Your task to perform on an android device: open wifi settings Image 0: 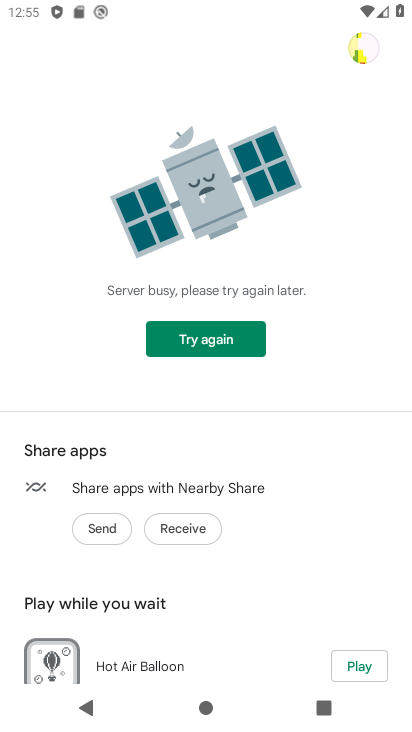
Step 0: press home button
Your task to perform on an android device: open wifi settings Image 1: 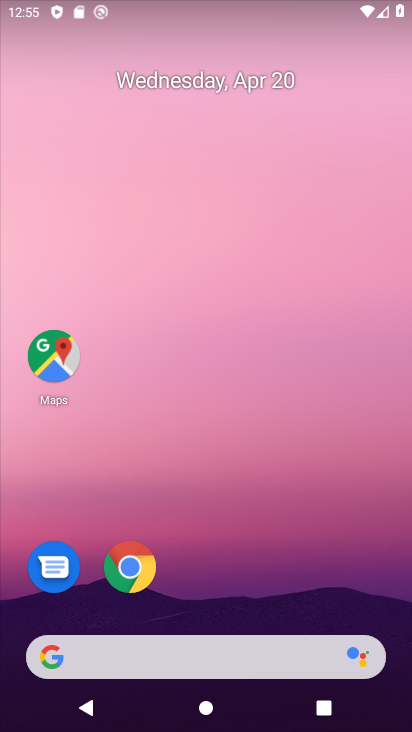
Step 1: drag from (207, 5) to (205, 366)
Your task to perform on an android device: open wifi settings Image 2: 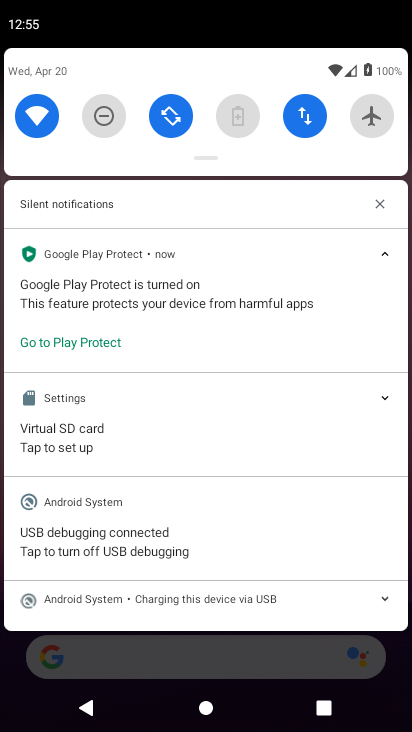
Step 2: click (37, 113)
Your task to perform on an android device: open wifi settings Image 3: 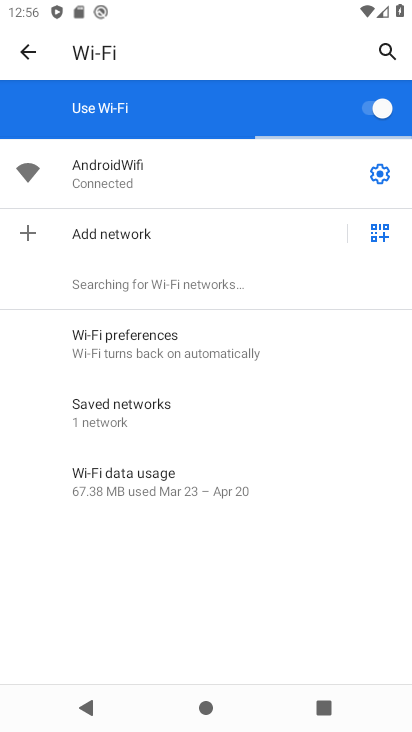
Step 3: task complete